Your task to perform on an android device: change the clock display to analog Image 0: 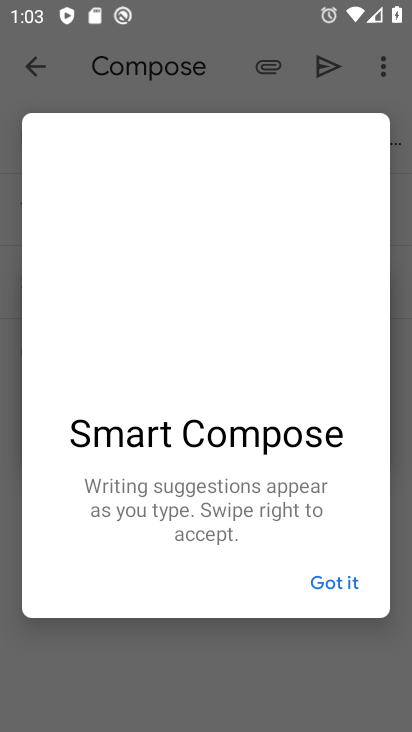
Step 0: press home button
Your task to perform on an android device: change the clock display to analog Image 1: 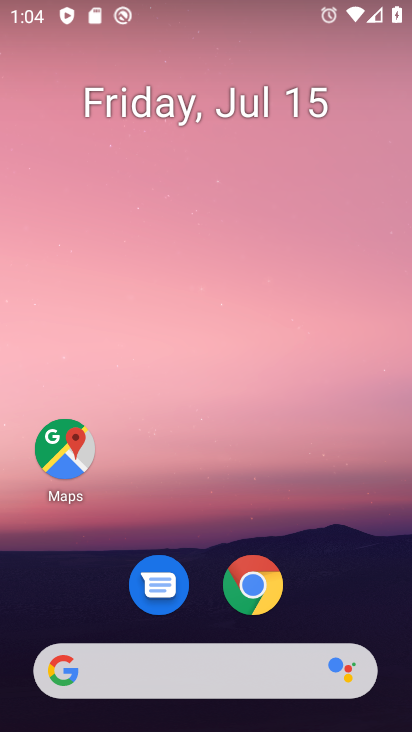
Step 1: drag from (197, 629) to (285, 156)
Your task to perform on an android device: change the clock display to analog Image 2: 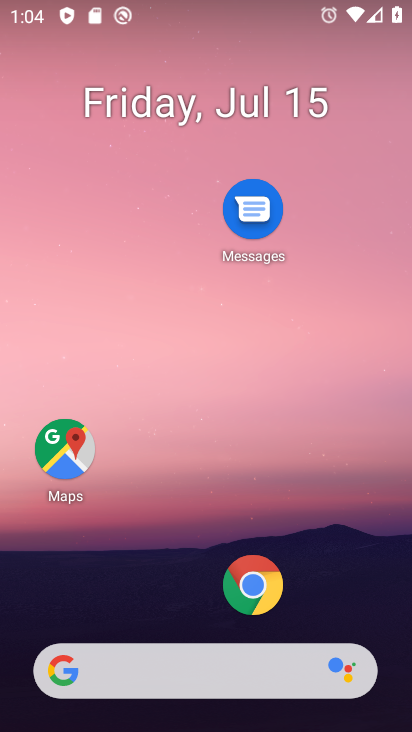
Step 2: drag from (269, 277) to (322, 88)
Your task to perform on an android device: change the clock display to analog Image 3: 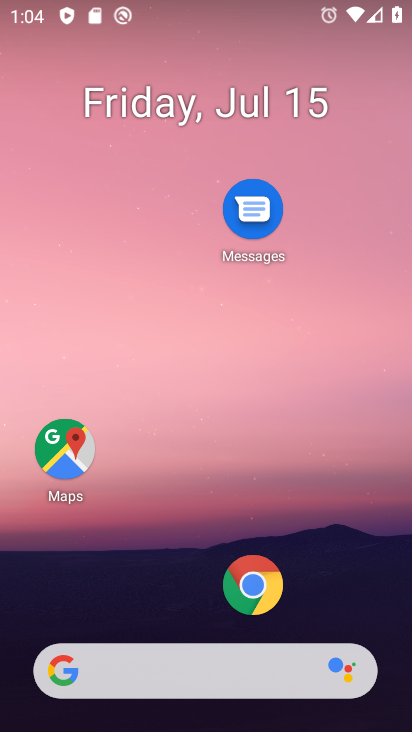
Step 3: drag from (179, 637) to (314, 94)
Your task to perform on an android device: change the clock display to analog Image 4: 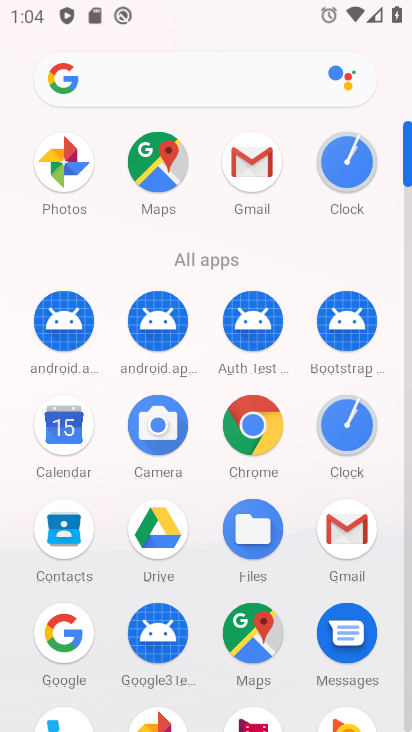
Step 4: click (352, 173)
Your task to perform on an android device: change the clock display to analog Image 5: 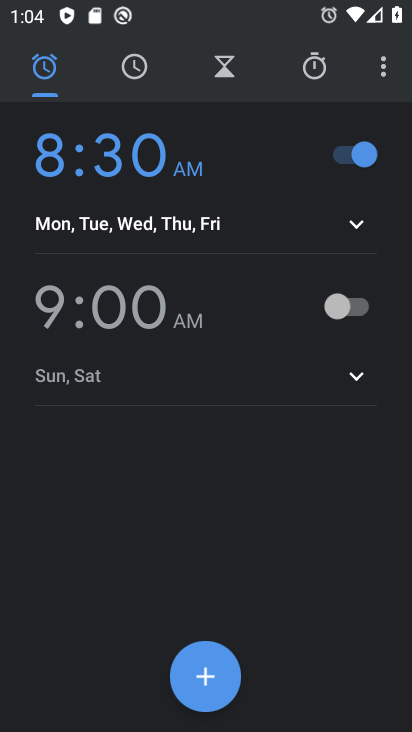
Step 5: click (383, 60)
Your task to perform on an android device: change the clock display to analog Image 6: 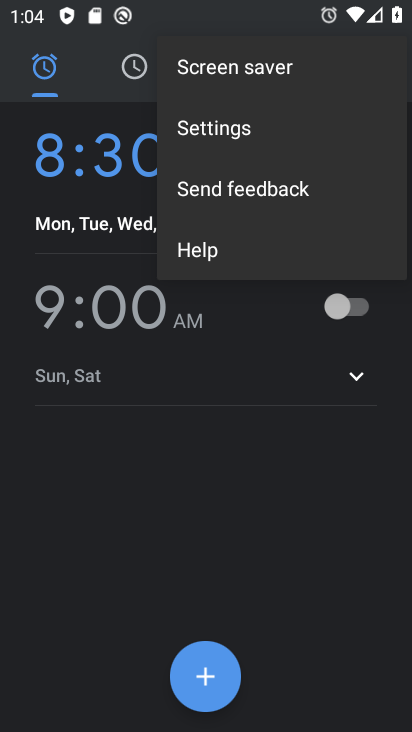
Step 6: click (253, 133)
Your task to perform on an android device: change the clock display to analog Image 7: 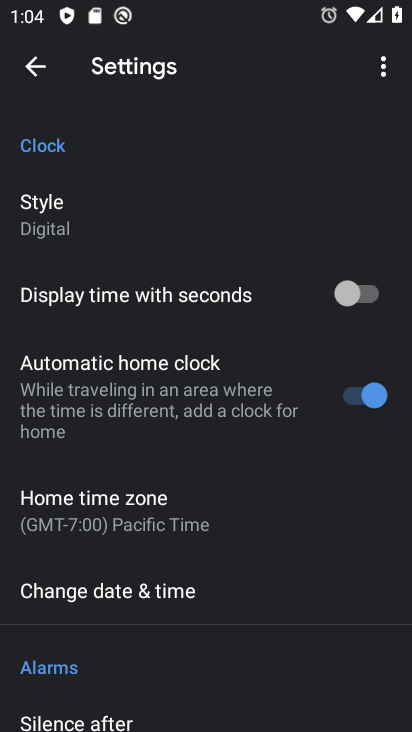
Step 7: click (58, 227)
Your task to perform on an android device: change the clock display to analog Image 8: 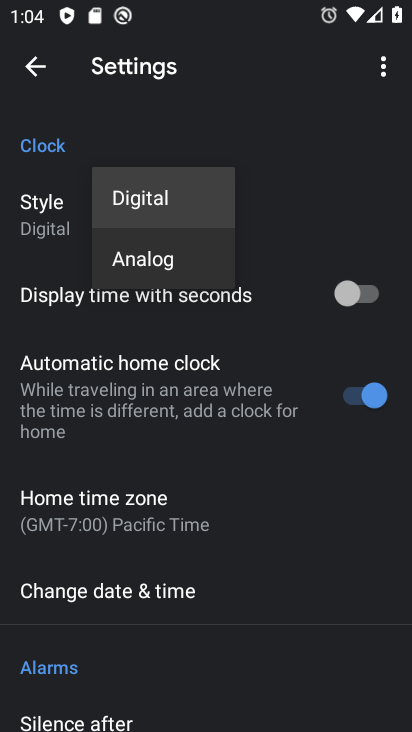
Step 8: click (162, 259)
Your task to perform on an android device: change the clock display to analog Image 9: 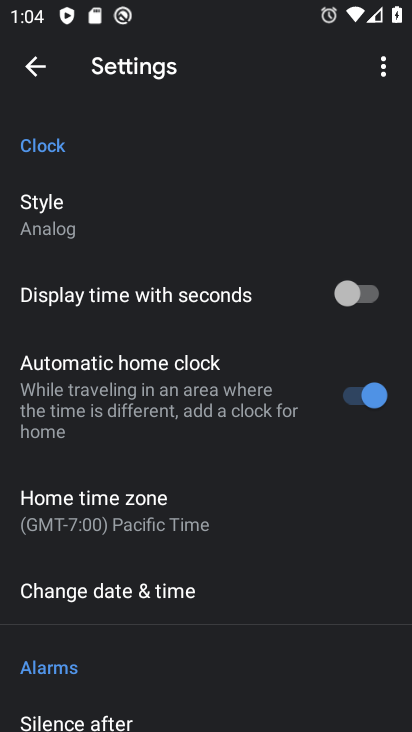
Step 9: task complete